Your task to perform on an android device: turn off notifications settings in the gmail app Image 0: 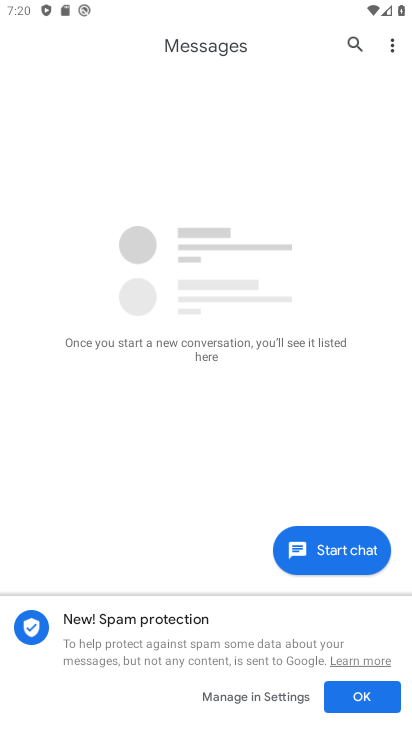
Step 0: press home button
Your task to perform on an android device: turn off notifications settings in the gmail app Image 1: 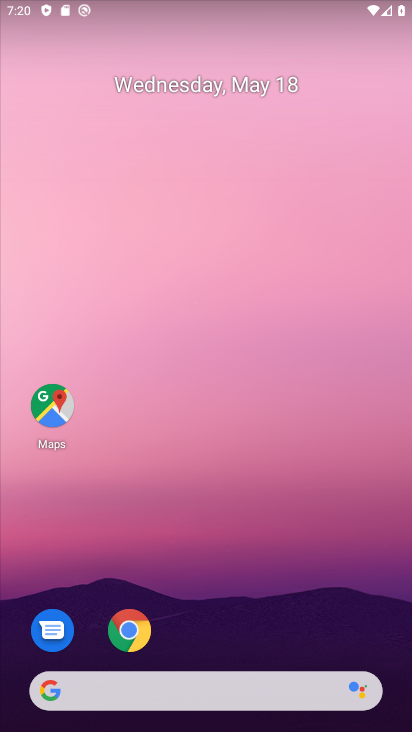
Step 1: drag from (263, 591) to (122, 42)
Your task to perform on an android device: turn off notifications settings in the gmail app Image 2: 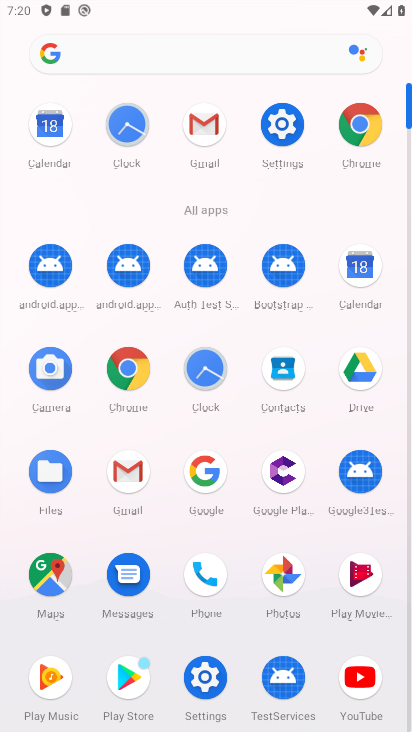
Step 2: click (125, 470)
Your task to perform on an android device: turn off notifications settings in the gmail app Image 3: 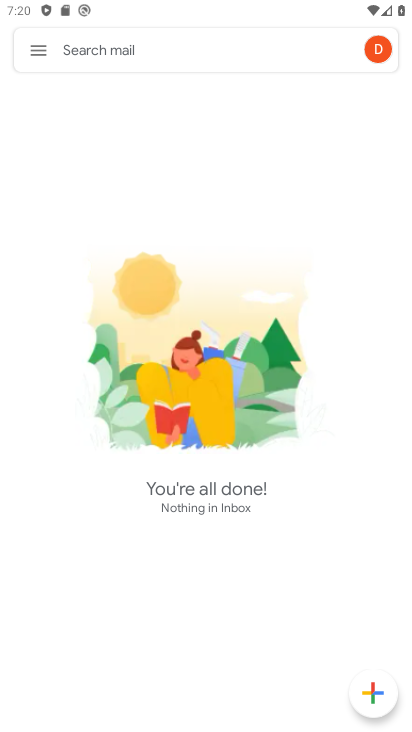
Step 3: click (36, 51)
Your task to perform on an android device: turn off notifications settings in the gmail app Image 4: 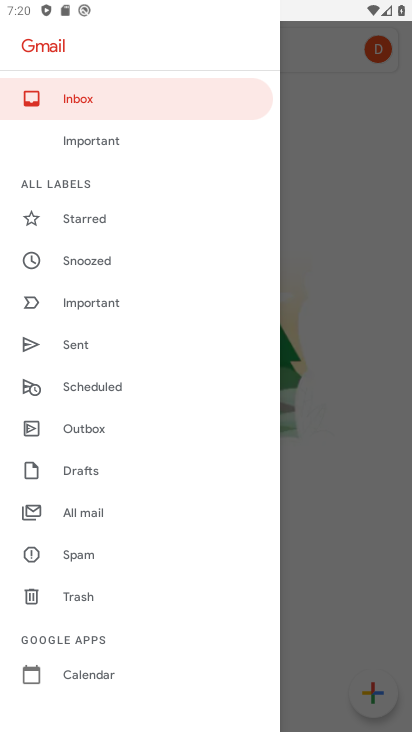
Step 4: drag from (163, 567) to (124, 295)
Your task to perform on an android device: turn off notifications settings in the gmail app Image 5: 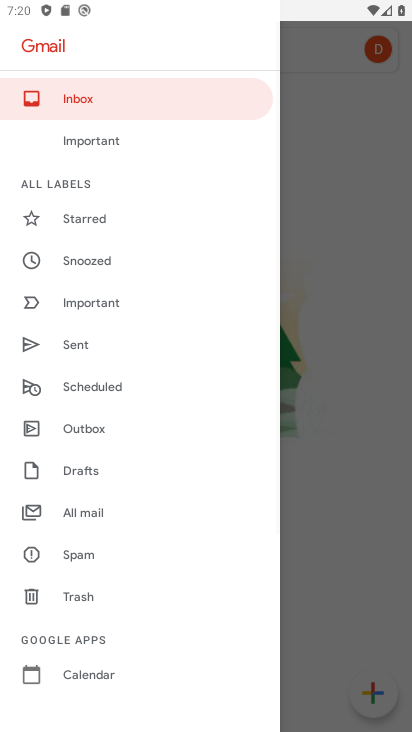
Step 5: drag from (122, 615) to (121, 323)
Your task to perform on an android device: turn off notifications settings in the gmail app Image 6: 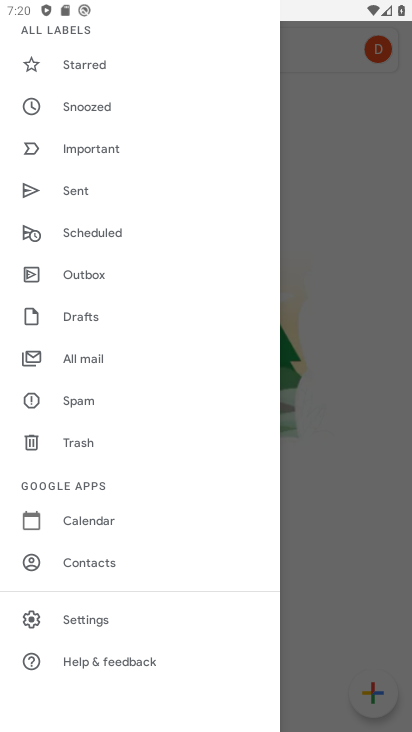
Step 6: click (76, 678)
Your task to perform on an android device: turn off notifications settings in the gmail app Image 7: 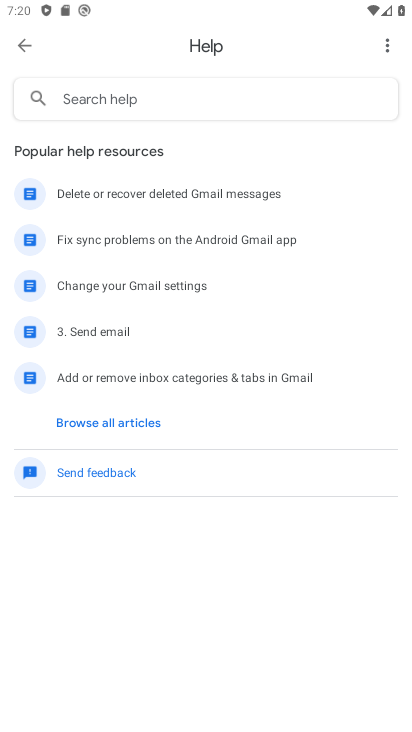
Step 7: click (21, 49)
Your task to perform on an android device: turn off notifications settings in the gmail app Image 8: 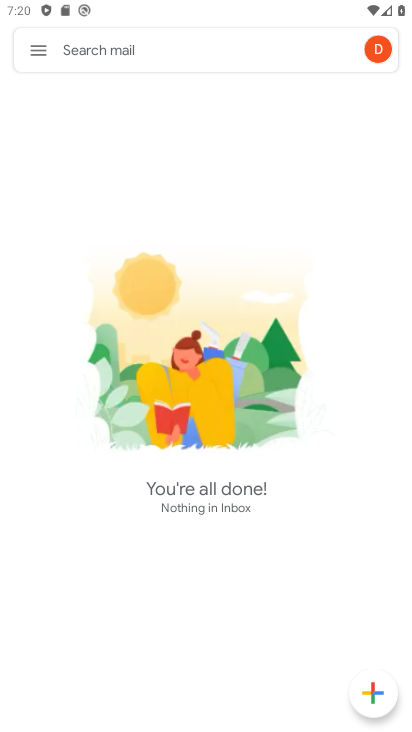
Step 8: click (38, 49)
Your task to perform on an android device: turn off notifications settings in the gmail app Image 9: 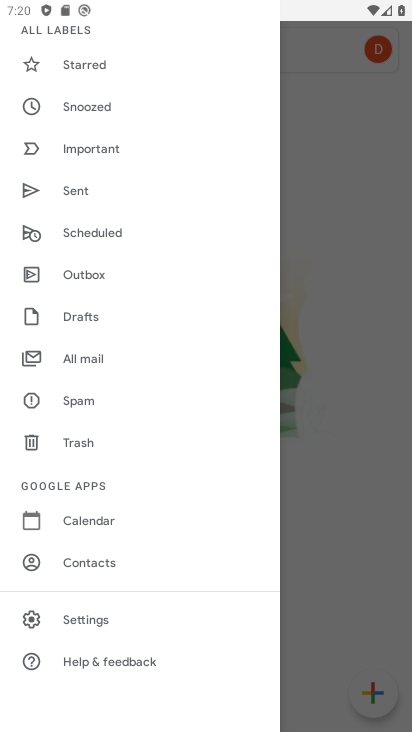
Step 9: click (80, 619)
Your task to perform on an android device: turn off notifications settings in the gmail app Image 10: 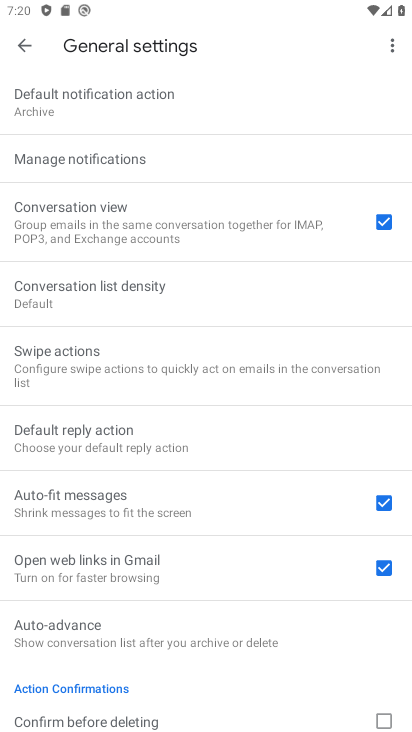
Step 10: click (108, 155)
Your task to perform on an android device: turn off notifications settings in the gmail app Image 11: 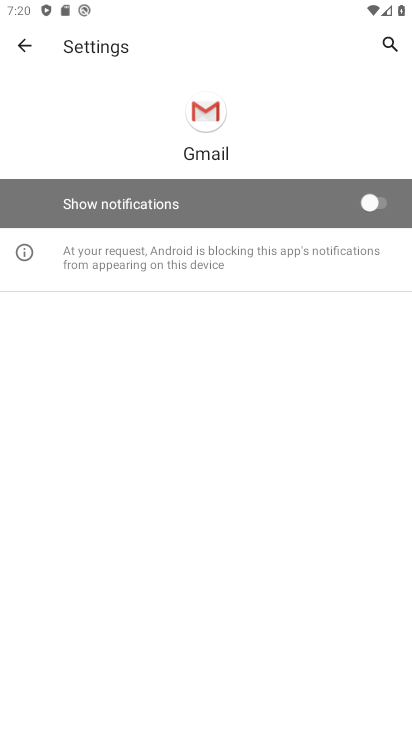
Step 11: task complete